Your task to perform on an android device: install app "Adobe Acrobat Reader: Edit PDF" Image 0: 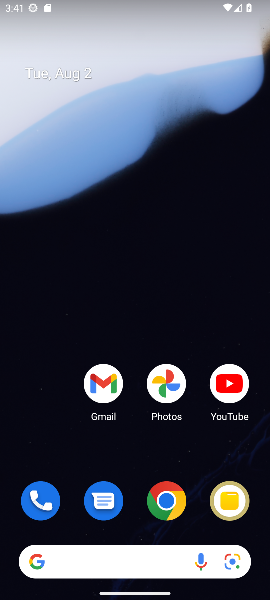
Step 0: drag from (135, 454) to (91, 112)
Your task to perform on an android device: install app "Adobe Acrobat Reader: Edit PDF" Image 1: 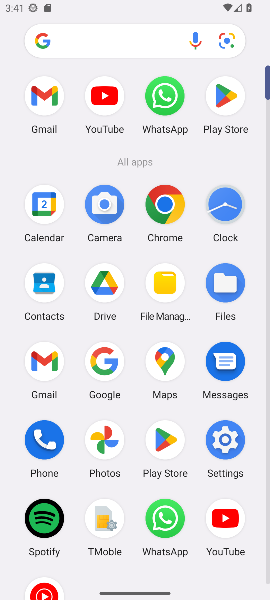
Step 1: click (167, 451)
Your task to perform on an android device: install app "Adobe Acrobat Reader: Edit PDF" Image 2: 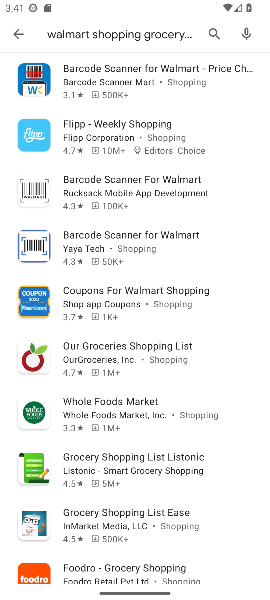
Step 2: click (212, 34)
Your task to perform on an android device: install app "Adobe Acrobat Reader: Edit PDF" Image 3: 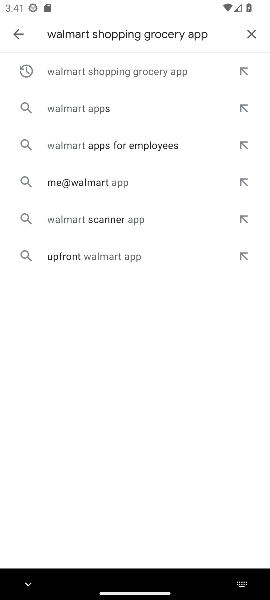
Step 3: click (249, 30)
Your task to perform on an android device: install app "Adobe Acrobat Reader: Edit PDF" Image 4: 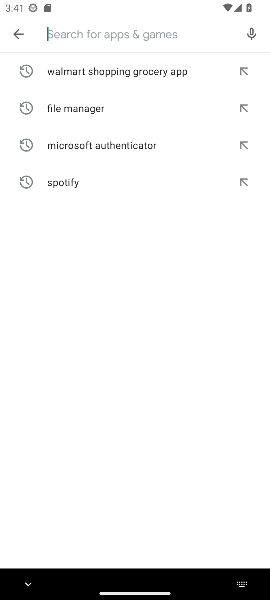
Step 4: type "Adobe acrobat"
Your task to perform on an android device: install app "Adobe Acrobat Reader: Edit PDF" Image 5: 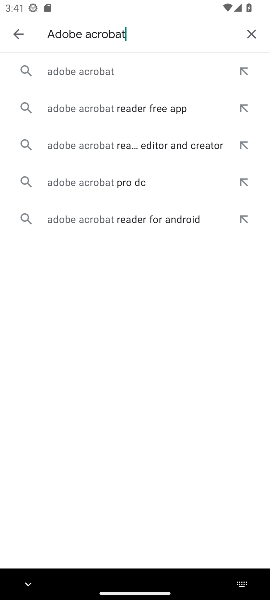
Step 5: click (68, 64)
Your task to perform on an android device: install app "Adobe Acrobat Reader: Edit PDF" Image 6: 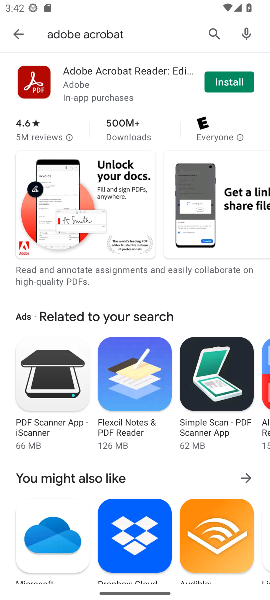
Step 6: click (221, 82)
Your task to perform on an android device: install app "Adobe Acrobat Reader: Edit PDF" Image 7: 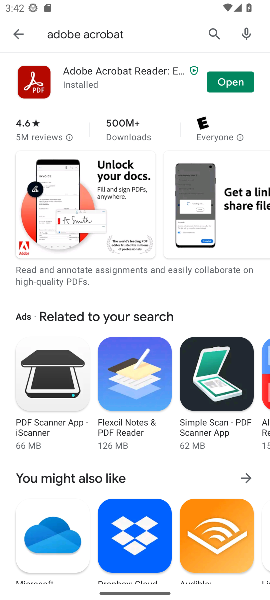
Step 7: task complete